Your task to perform on an android device: empty trash in the gmail app Image 0: 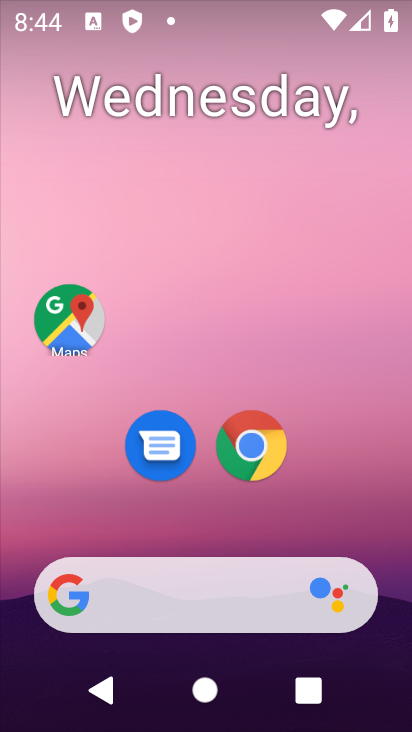
Step 0: drag from (365, 502) to (405, 211)
Your task to perform on an android device: empty trash in the gmail app Image 1: 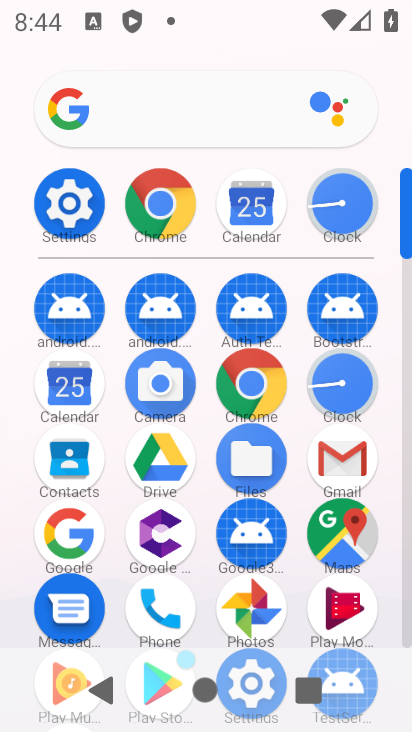
Step 1: click (335, 449)
Your task to perform on an android device: empty trash in the gmail app Image 2: 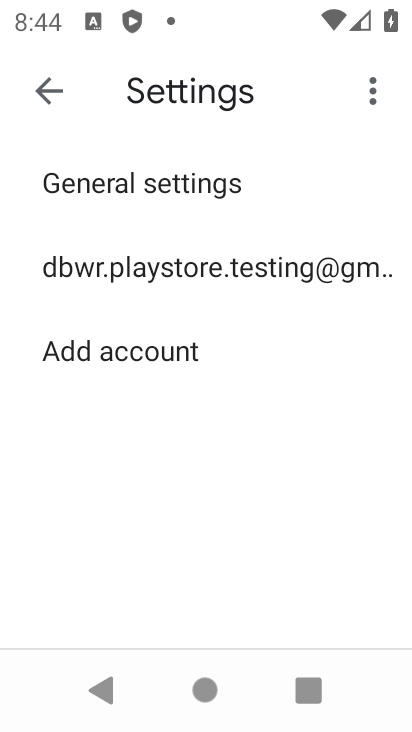
Step 2: click (107, 257)
Your task to perform on an android device: empty trash in the gmail app Image 3: 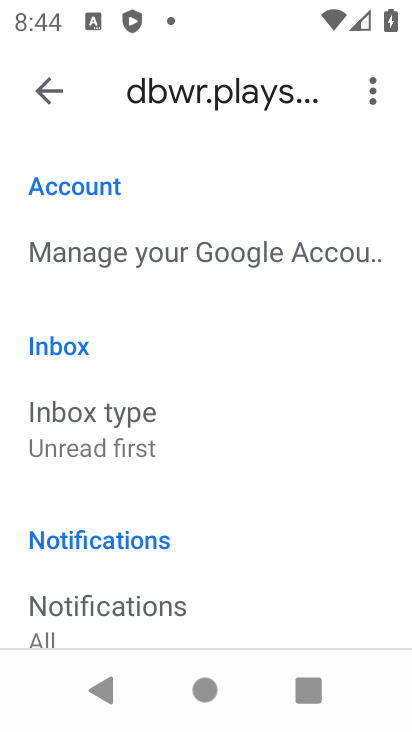
Step 3: click (47, 99)
Your task to perform on an android device: empty trash in the gmail app Image 4: 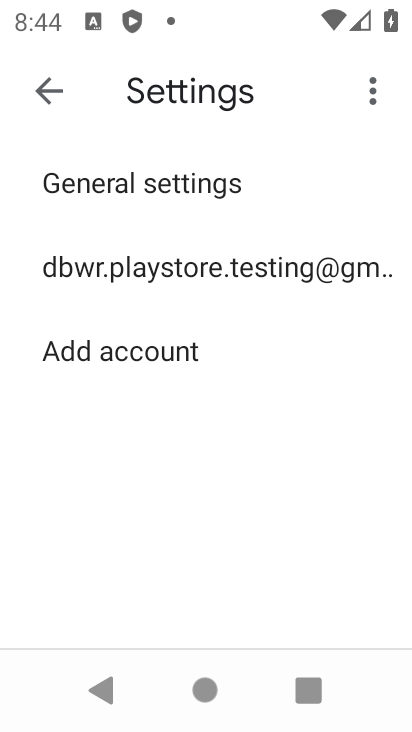
Step 4: click (47, 99)
Your task to perform on an android device: empty trash in the gmail app Image 5: 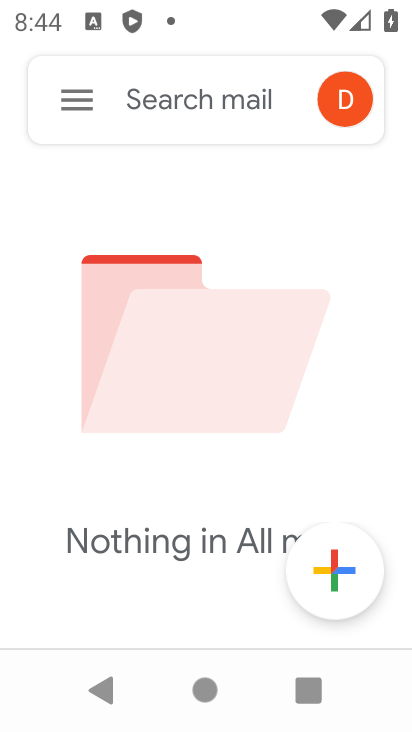
Step 5: click (47, 99)
Your task to perform on an android device: empty trash in the gmail app Image 6: 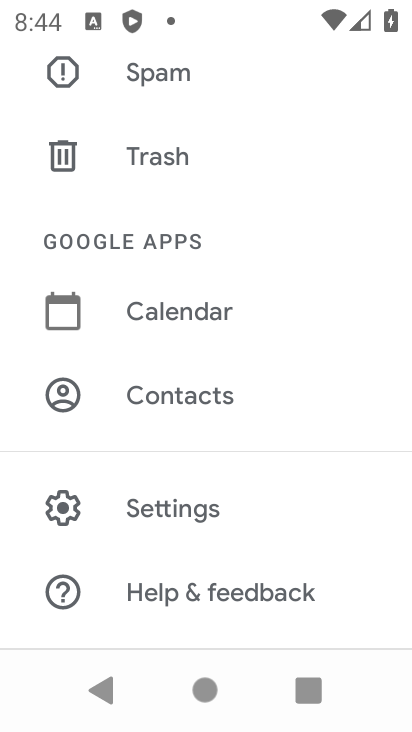
Step 6: click (96, 170)
Your task to perform on an android device: empty trash in the gmail app Image 7: 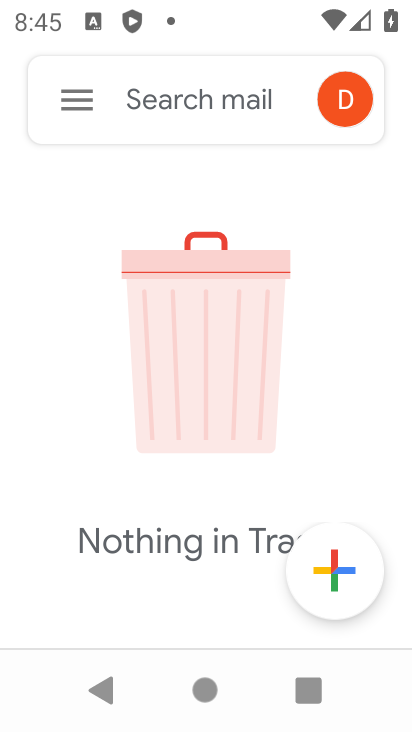
Step 7: click (73, 92)
Your task to perform on an android device: empty trash in the gmail app Image 8: 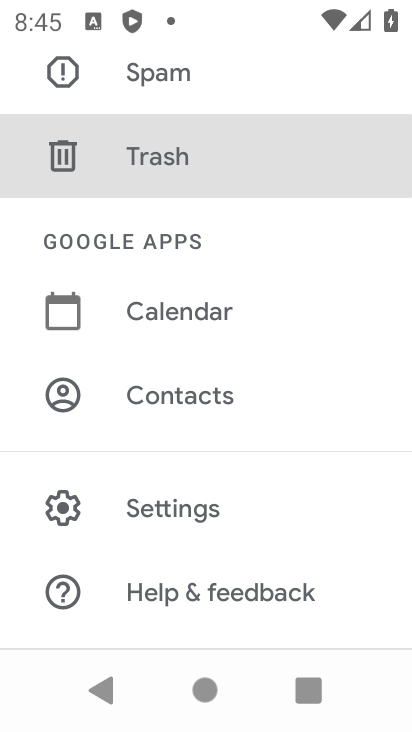
Step 8: click (123, 177)
Your task to perform on an android device: empty trash in the gmail app Image 9: 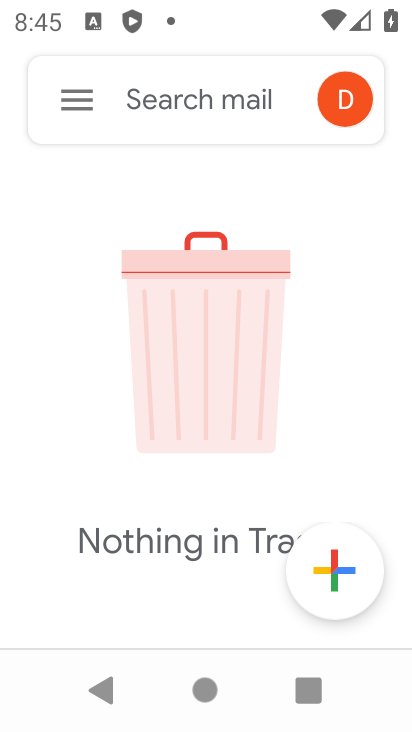
Step 9: task complete